Your task to perform on an android device: check battery use Image 0: 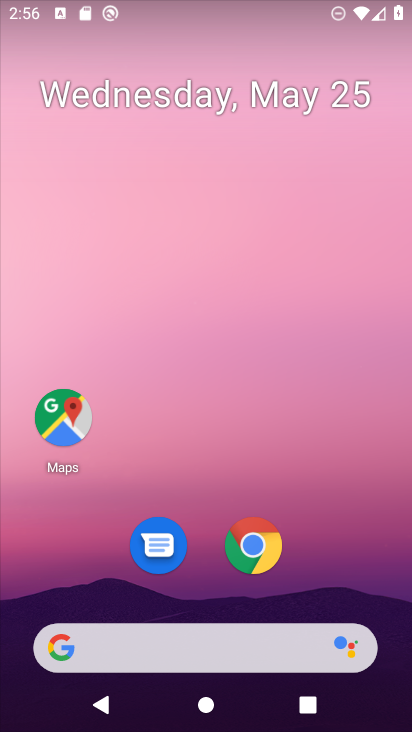
Step 0: drag from (341, 586) to (78, 4)
Your task to perform on an android device: check battery use Image 1: 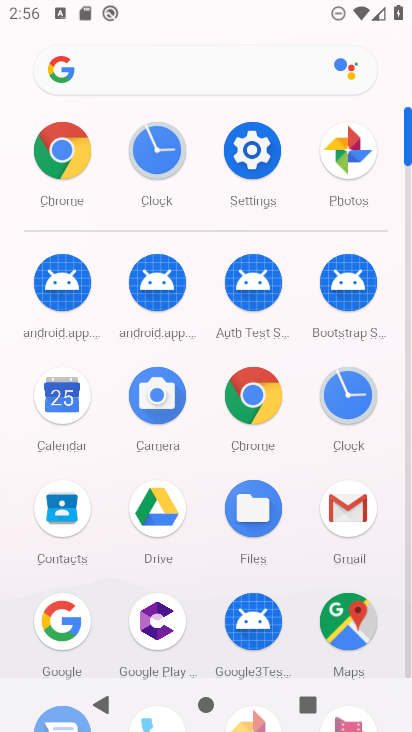
Step 1: click (270, 161)
Your task to perform on an android device: check battery use Image 2: 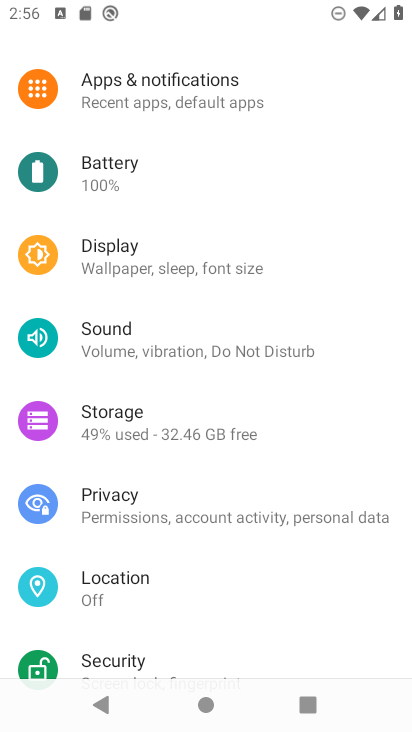
Step 2: click (190, 167)
Your task to perform on an android device: check battery use Image 3: 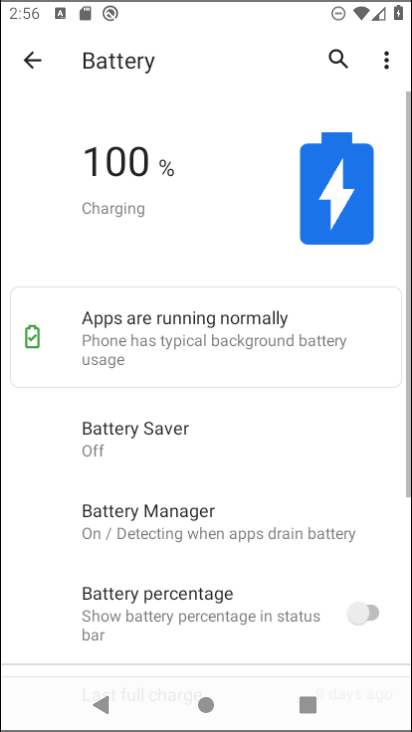
Step 3: task complete